Your task to perform on an android device: What's on my calendar today? Image 0: 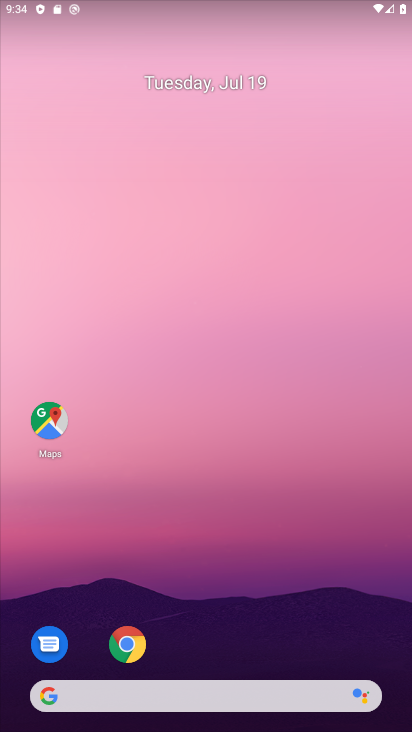
Step 0: drag from (214, 653) to (205, 135)
Your task to perform on an android device: What's on my calendar today? Image 1: 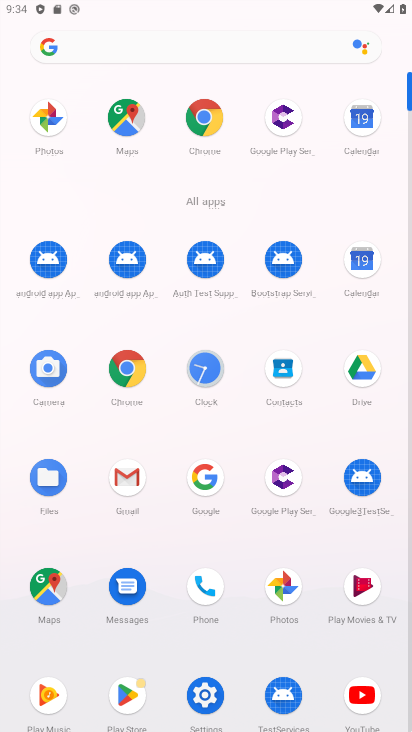
Step 1: click (369, 262)
Your task to perform on an android device: What's on my calendar today? Image 2: 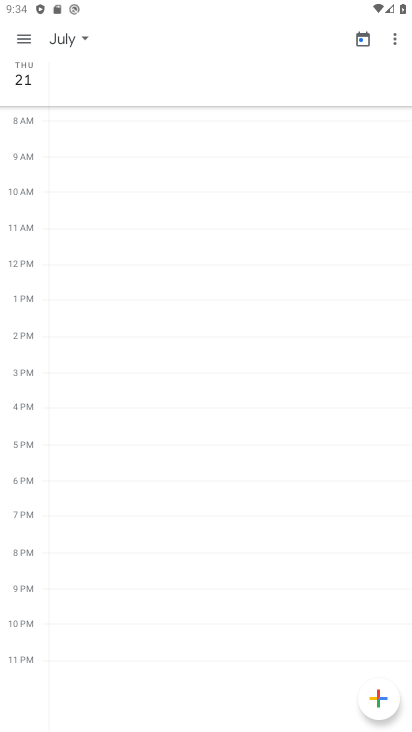
Step 2: click (20, 40)
Your task to perform on an android device: What's on my calendar today? Image 3: 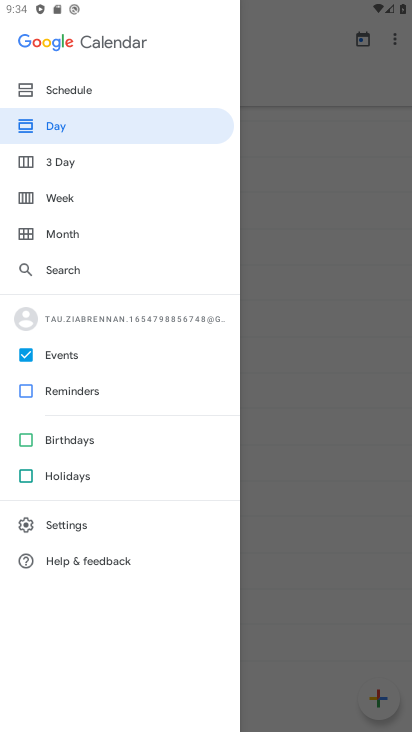
Step 3: click (51, 124)
Your task to perform on an android device: What's on my calendar today? Image 4: 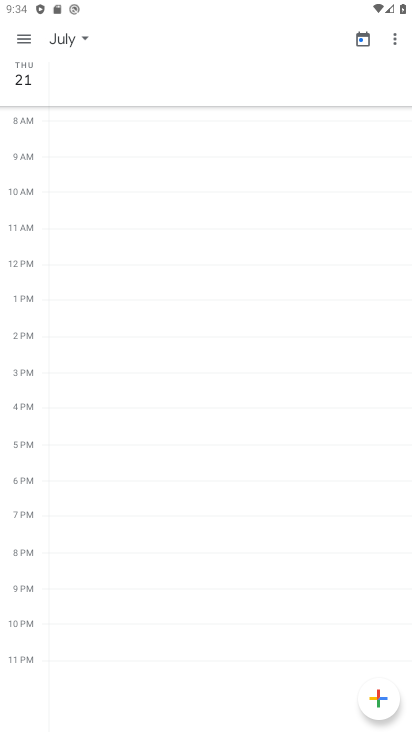
Step 4: task complete